Your task to perform on an android device: change the clock display to show seconds Image 0: 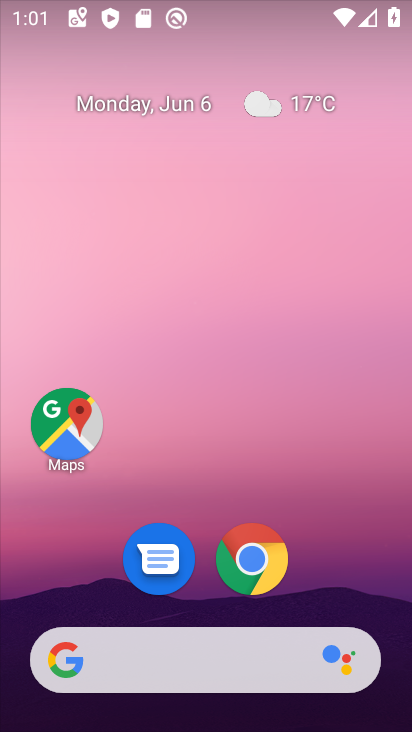
Step 0: drag from (353, 534) to (265, 171)
Your task to perform on an android device: change the clock display to show seconds Image 1: 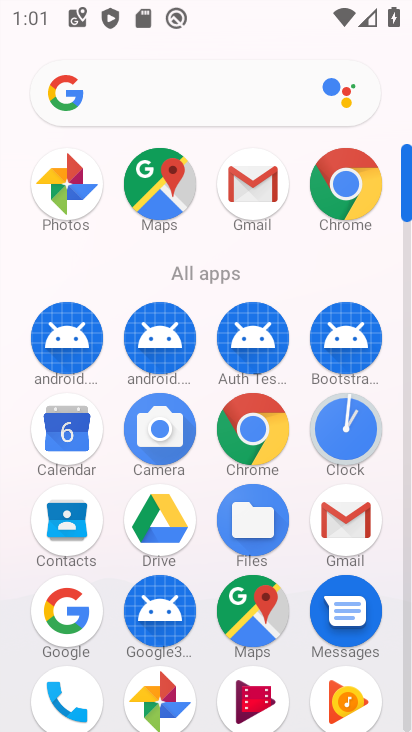
Step 1: click (339, 443)
Your task to perform on an android device: change the clock display to show seconds Image 2: 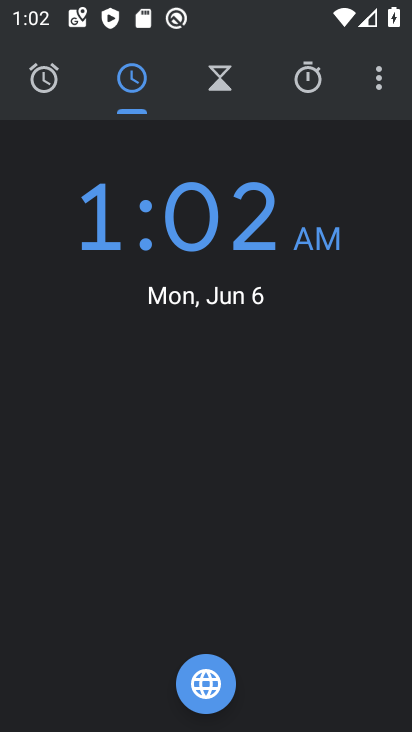
Step 2: click (373, 66)
Your task to perform on an android device: change the clock display to show seconds Image 3: 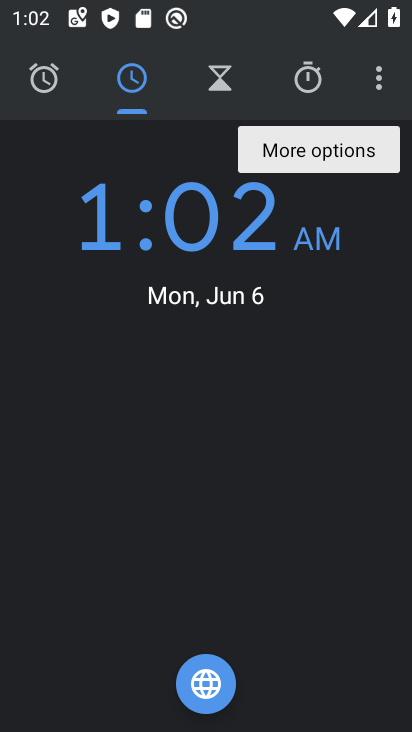
Step 3: click (386, 80)
Your task to perform on an android device: change the clock display to show seconds Image 4: 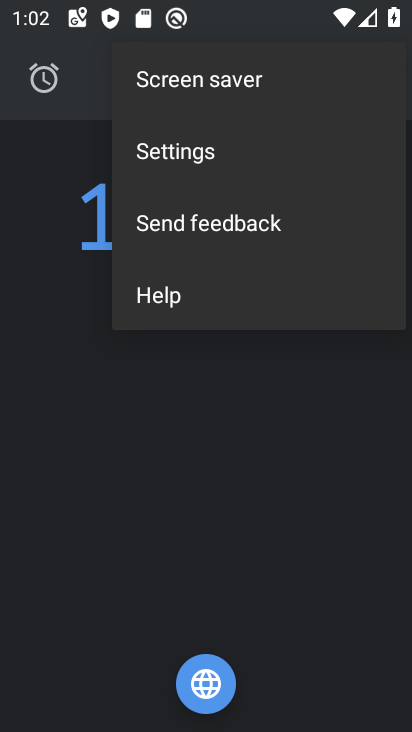
Step 4: click (244, 146)
Your task to perform on an android device: change the clock display to show seconds Image 5: 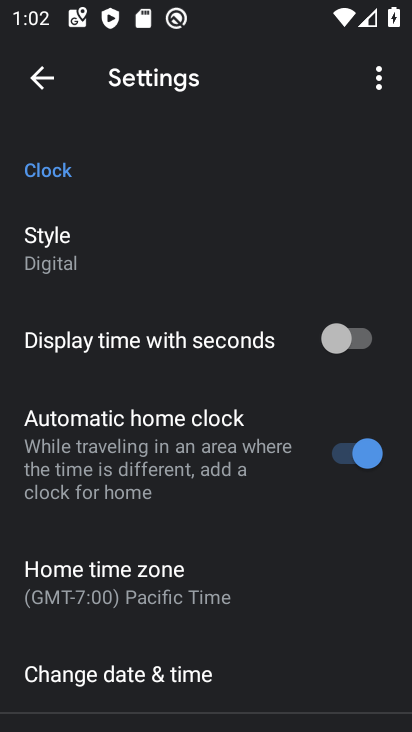
Step 5: click (354, 340)
Your task to perform on an android device: change the clock display to show seconds Image 6: 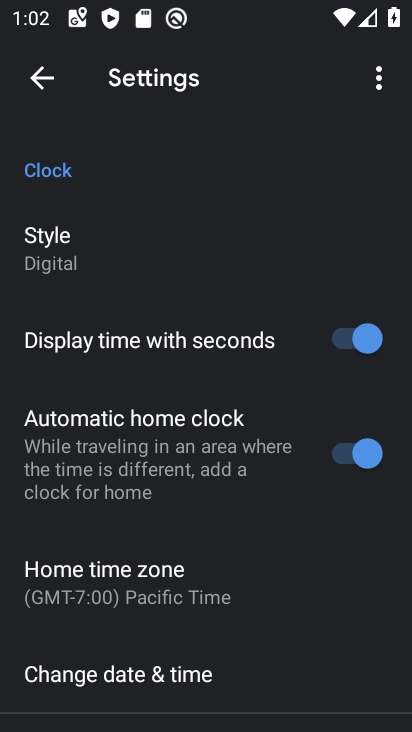
Step 6: task complete